Your task to perform on an android device: turn notification dots on Image 0: 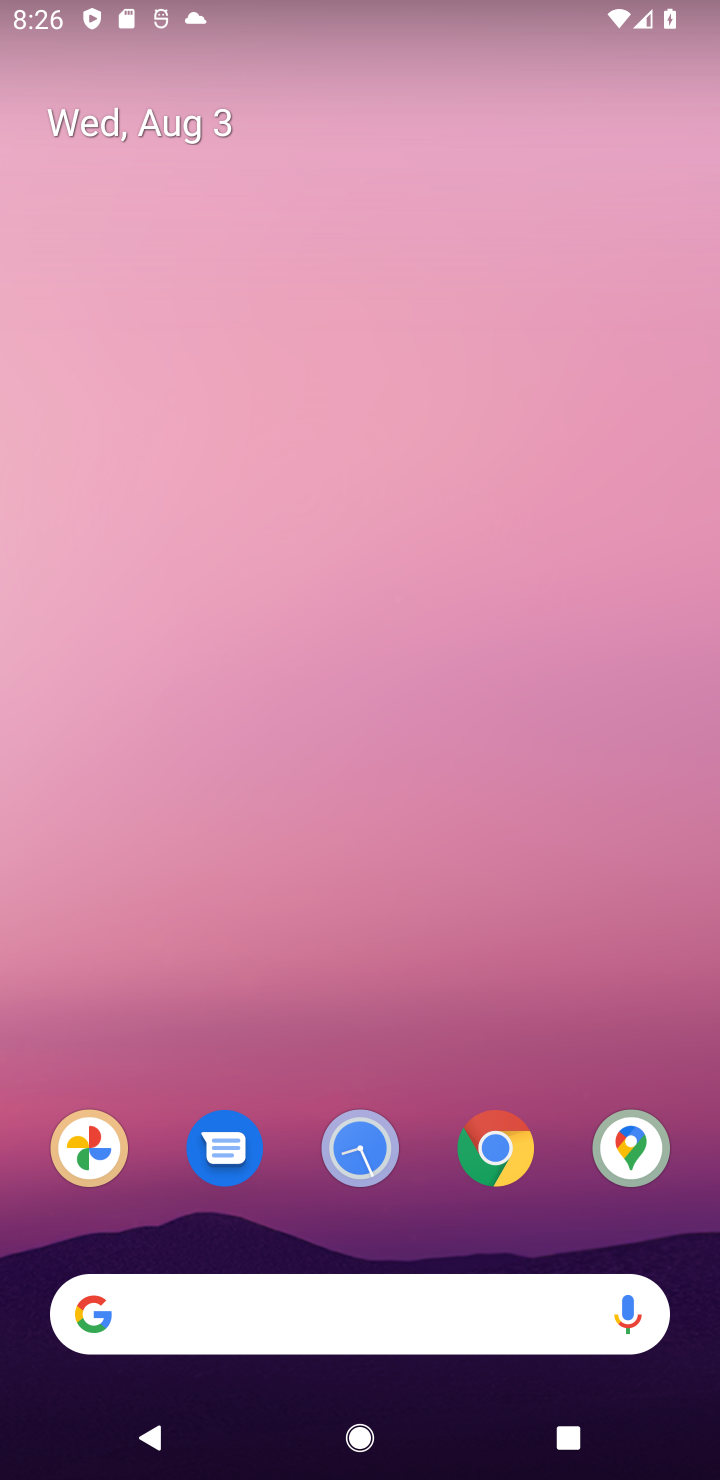
Step 0: drag from (376, 821) to (355, 140)
Your task to perform on an android device: turn notification dots on Image 1: 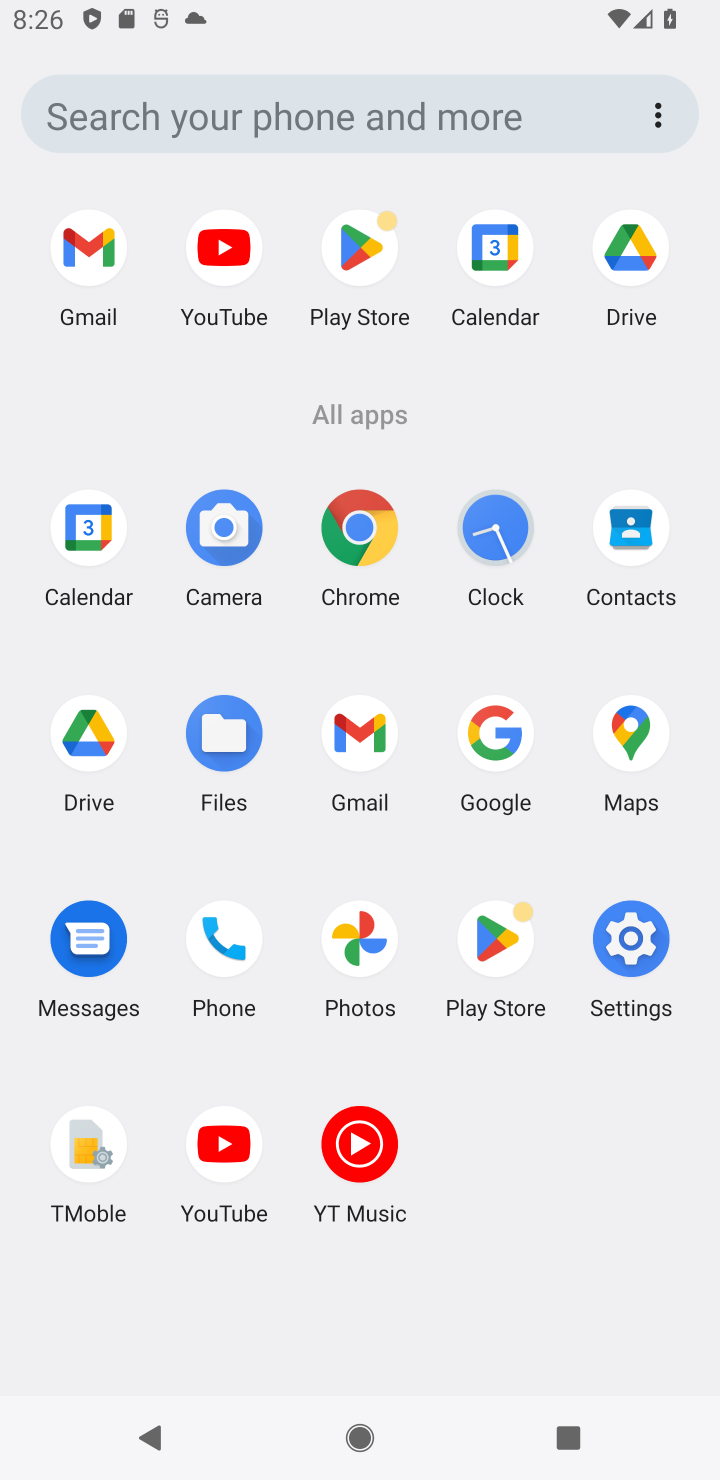
Step 1: click (639, 951)
Your task to perform on an android device: turn notification dots on Image 2: 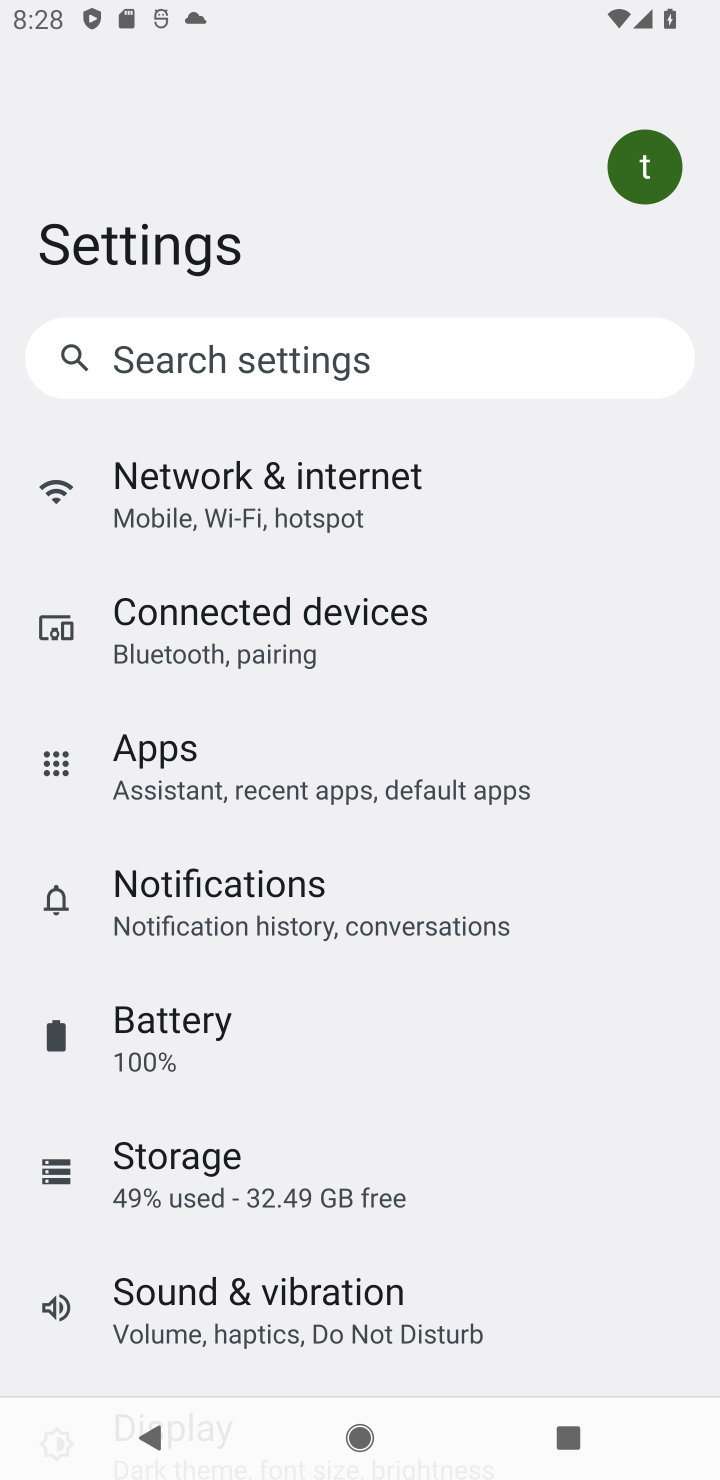
Step 2: task complete